Your task to perform on an android device: turn vacation reply on in the gmail app Image 0: 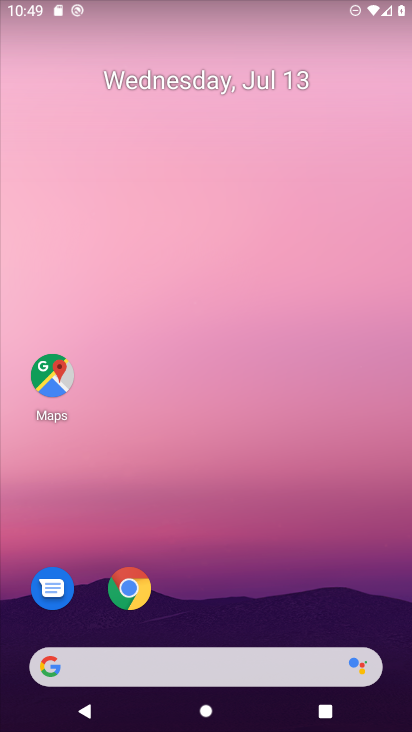
Step 0: drag from (220, 623) to (251, 115)
Your task to perform on an android device: turn vacation reply on in the gmail app Image 1: 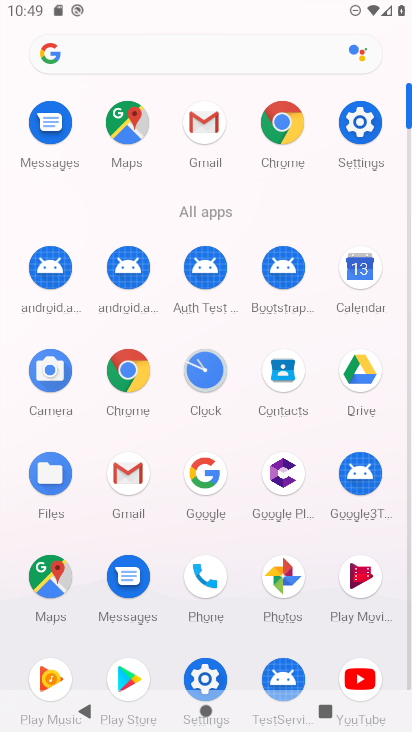
Step 1: click (130, 483)
Your task to perform on an android device: turn vacation reply on in the gmail app Image 2: 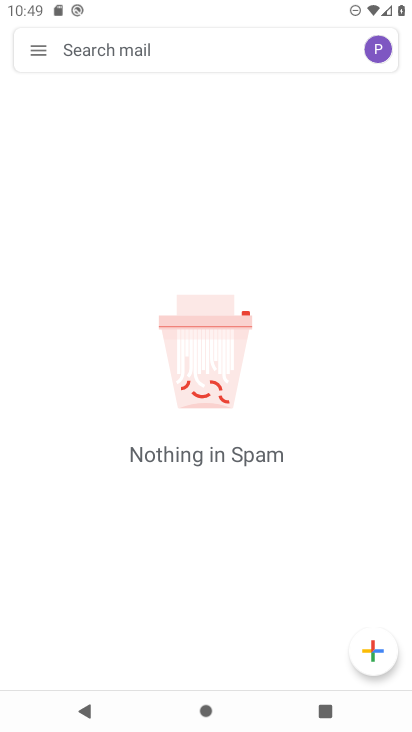
Step 2: click (36, 47)
Your task to perform on an android device: turn vacation reply on in the gmail app Image 3: 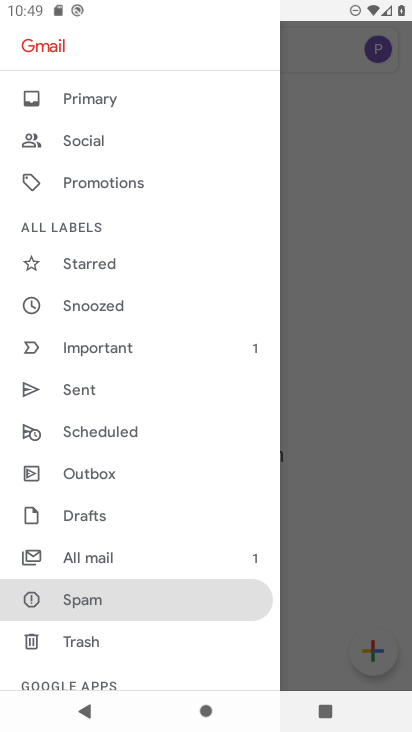
Step 3: drag from (116, 549) to (158, 223)
Your task to perform on an android device: turn vacation reply on in the gmail app Image 4: 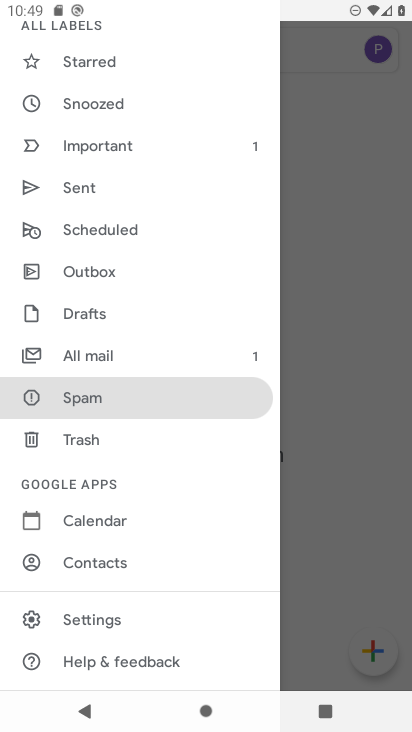
Step 4: click (97, 622)
Your task to perform on an android device: turn vacation reply on in the gmail app Image 5: 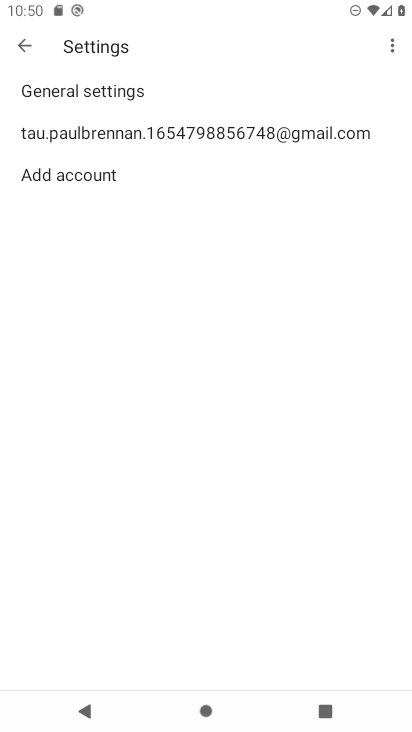
Step 5: click (130, 128)
Your task to perform on an android device: turn vacation reply on in the gmail app Image 6: 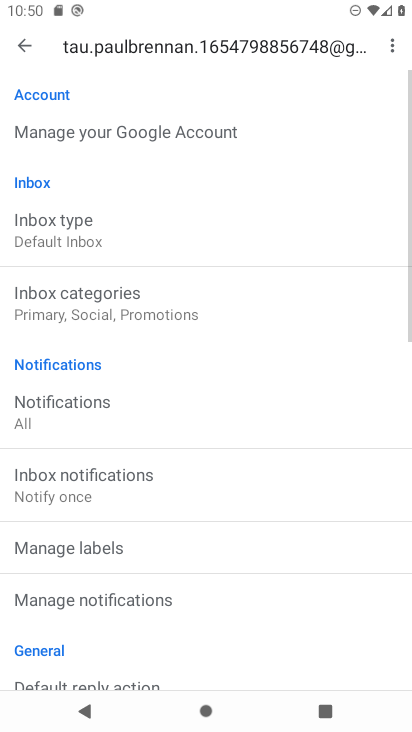
Step 6: drag from (196, 462) to (238, 178)
Your task to perform on an android device: turn vacation reply on in the gmail app Image 7: 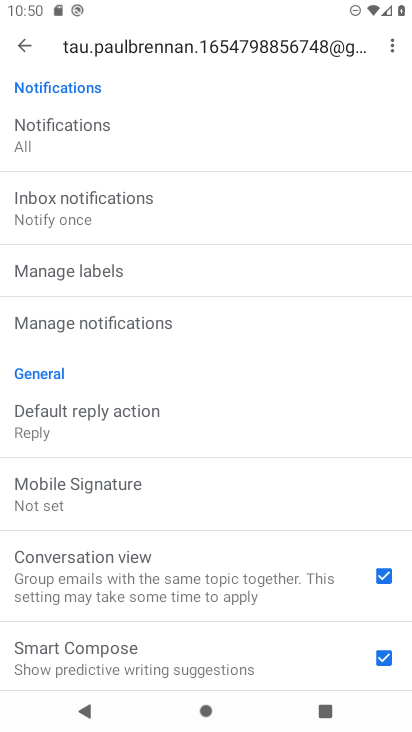
Step 7: drag from (206, 597) to (235, 378)
Your task to perform on an android device: turn vacation reply on in the gmail app Image 8: 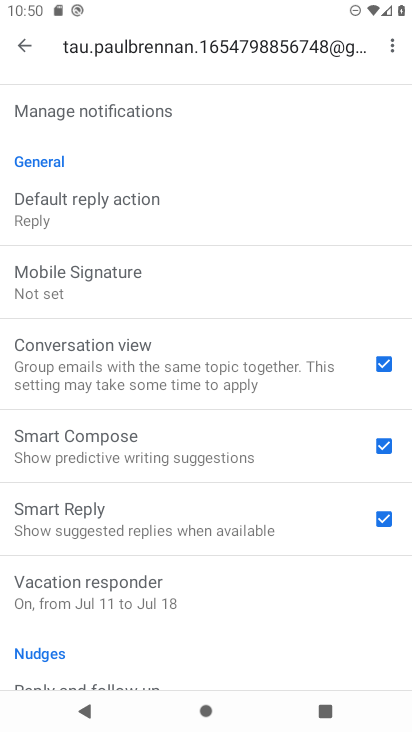
Step 8: click (207, 598)
Your task to perform on an android device: turn vacation reply on in the gmail app Image 9: 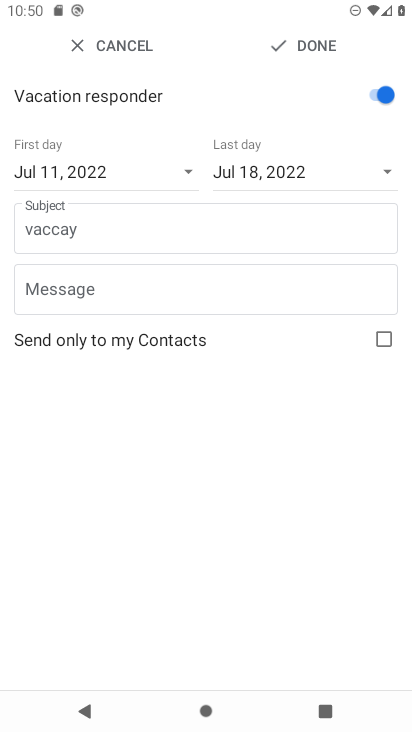
Step 9: task complete